Your task to perform on an android device: turn off location history Image 0: 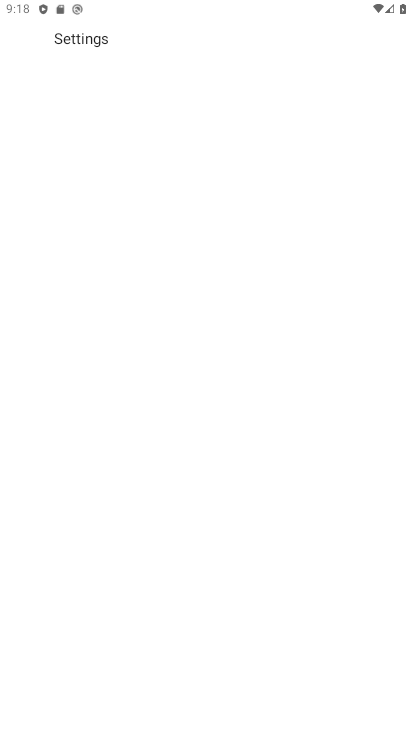
Step 0: click (375, 645)
Your task to perform on an android device: turn off location history Image 1: 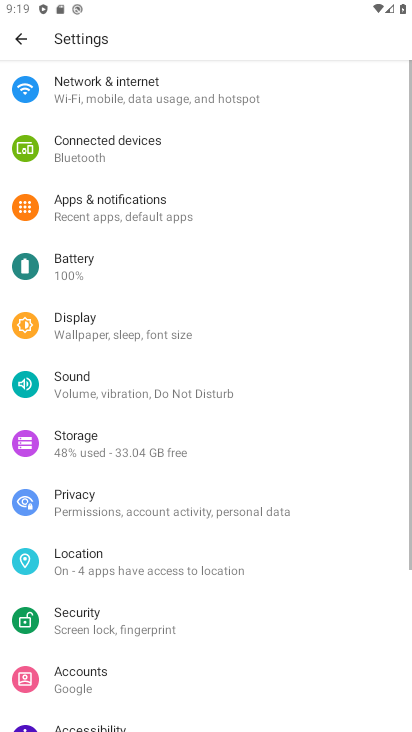
Step 1: press home button
Your task to perform on an android device: turn off location history Image 2: 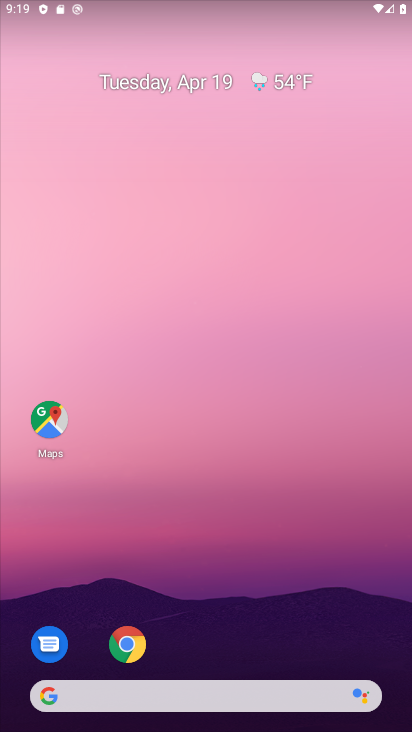
Step 2: click (309, 614)
Your task to perform on an android device: turn off location history Image 3: 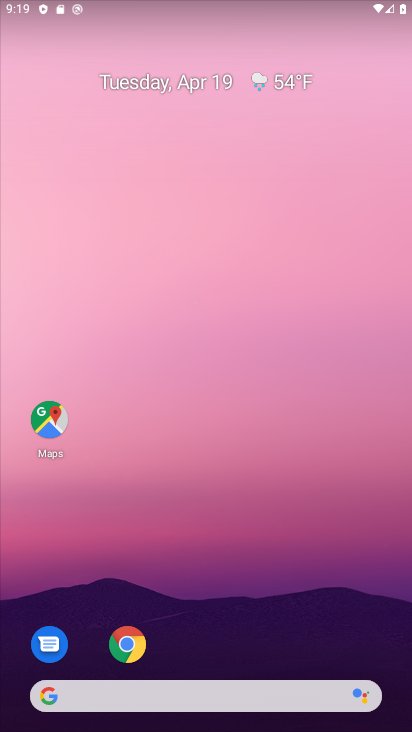
Step 3: drag from (309, 593) to (253, 122)
Your task to perform on an android device: turn off location history Image 4: 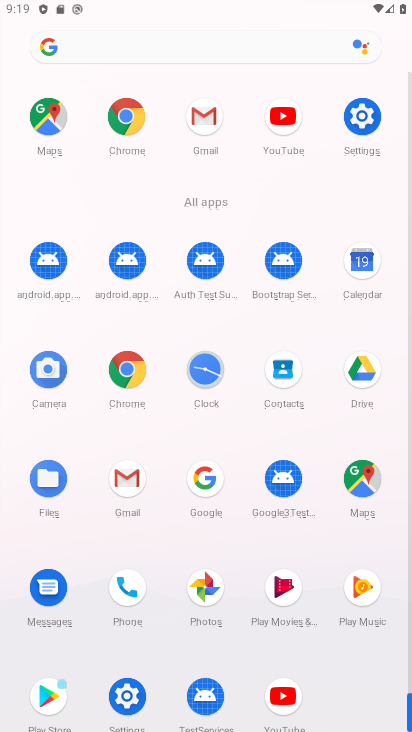
Step 4: click (358, 123)
Your task to perform on an android device: turn off location history Image 5: 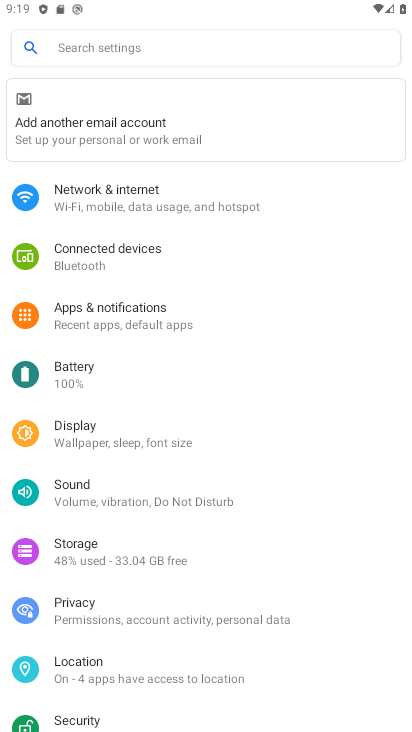
Step 5: press home button
Your task to perform on an android device: turn off location history Image 6: 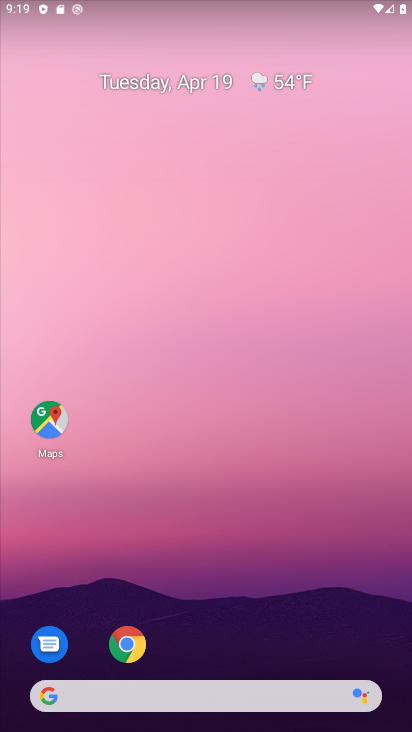
Step 6: drag from (340, 627) to (255, 34)
Your task to perform on an android device: turn off location history Image 7: 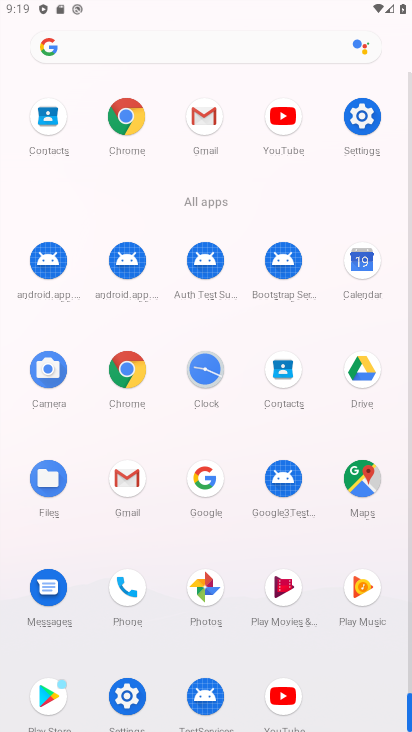
Step 7: click (354, 473)
Your task to perform on an android device: turn off location history Image 8: 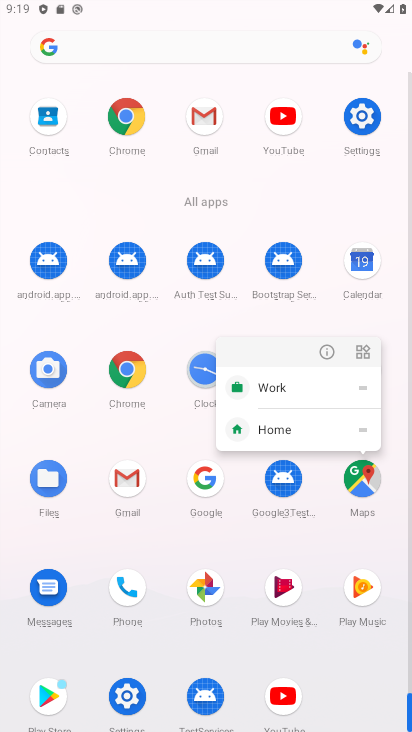
Step 8: click (361, 483)
Your task to perform on an android device: turn off location history Image 9: 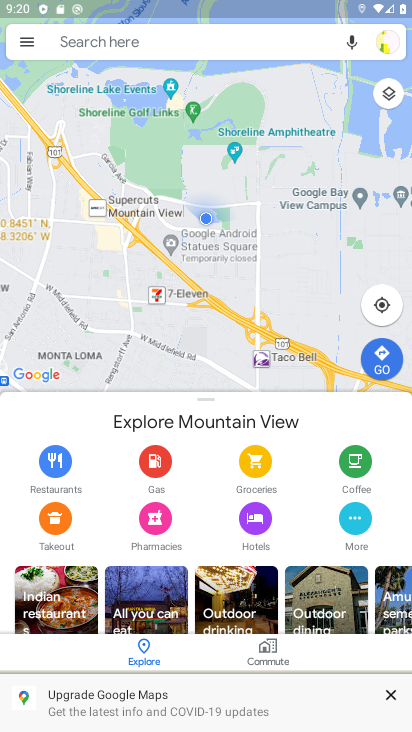
Step 9: click (24, 37)
Your task to perform on an android device: turn off location history Image 10: 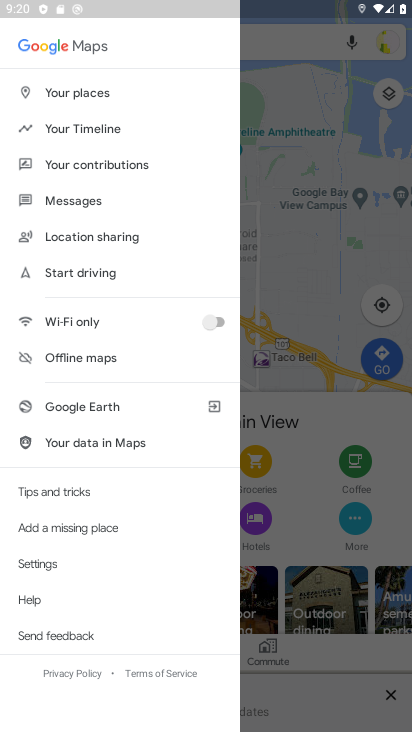
Step 10: click (125, 120)
Your task to perform on an android device: turn off location history Image 11: 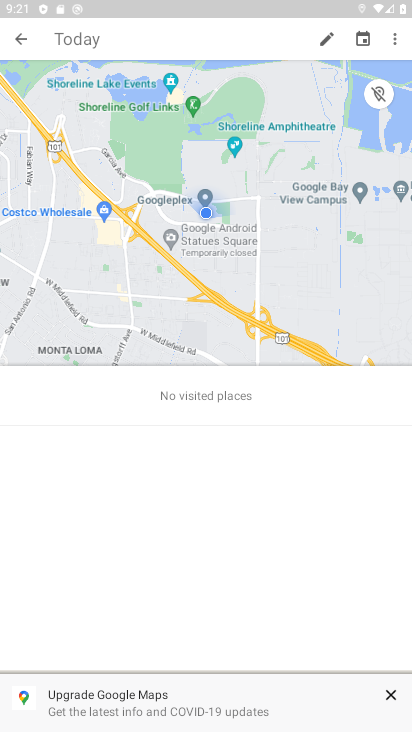
Step 11: click (394, 40)
Your task to perform on an android device: turn off location history Image 12: 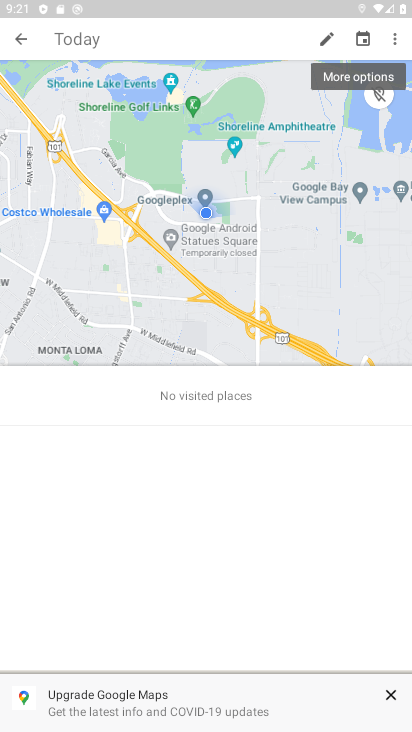
Step 12: click (386, 34)
Your task to perform on an android device: turn off location history Image 13: 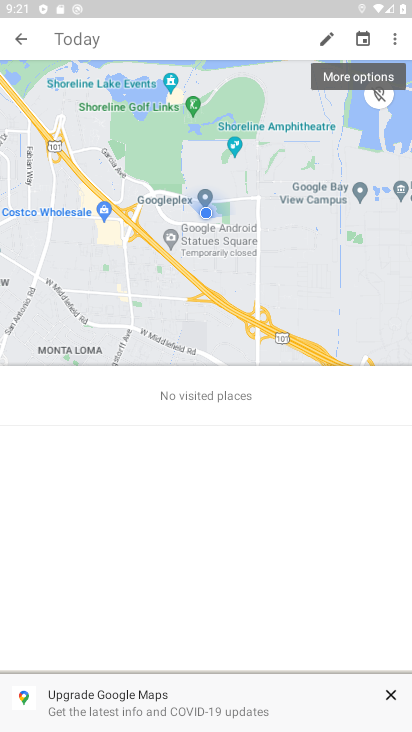
Step 13: click (393, 45)
Your task to perform on an android device: turn off location history Image 14: 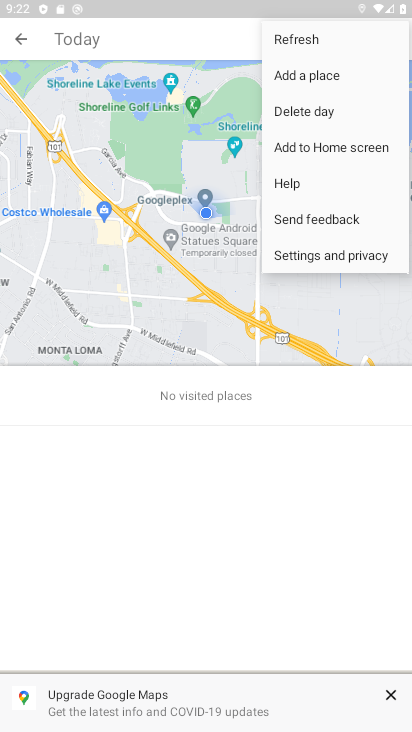
Step 14: click (325, 256)
Your task to perform on an android device: turn off location history Image 15: 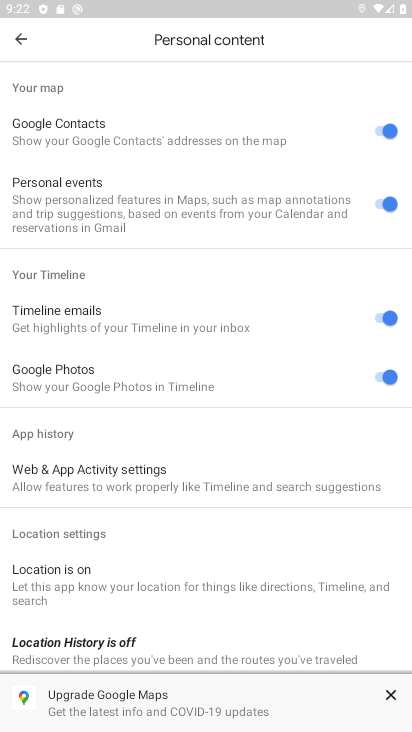
Step 15: click (101, 638)
Your task to perform on an android device: turn off location history Image 16: 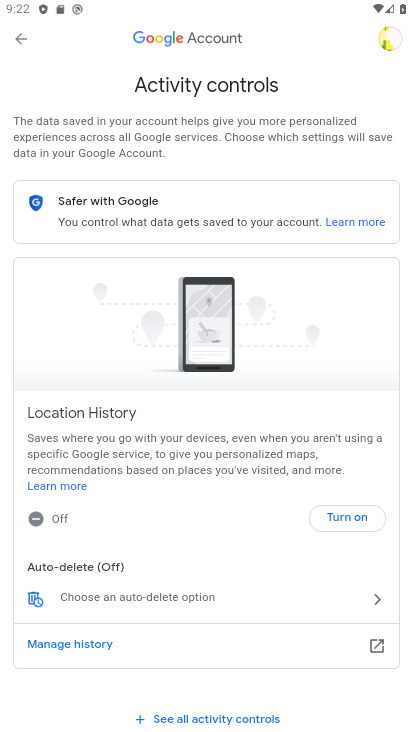
Step 16: task complete